Your task to perform on an android device: change the clock display to digital Image 0: 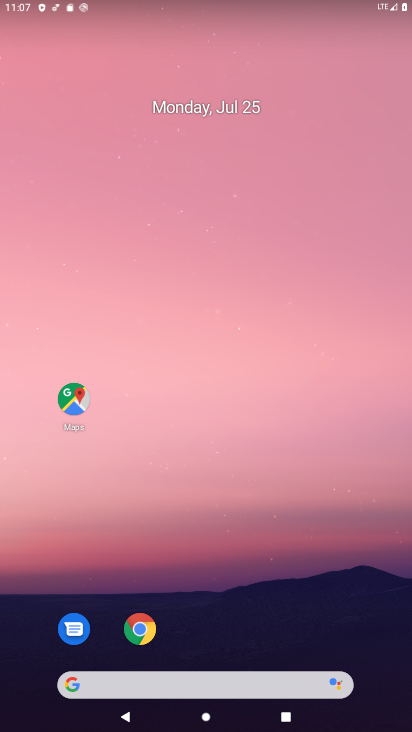
Step 0: press home button
Your task to perform on an android device: change the clock display to digital Image 1: 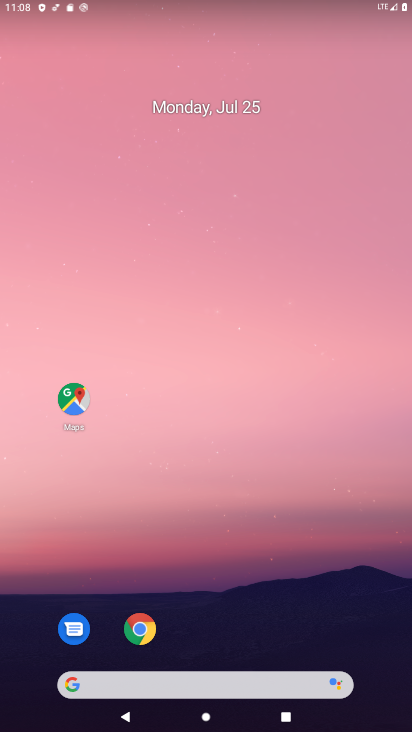
Step 1: drag from (195, 648) to (212, 159)
Your task to perform on an android device: change the clock display to digital Image 2: 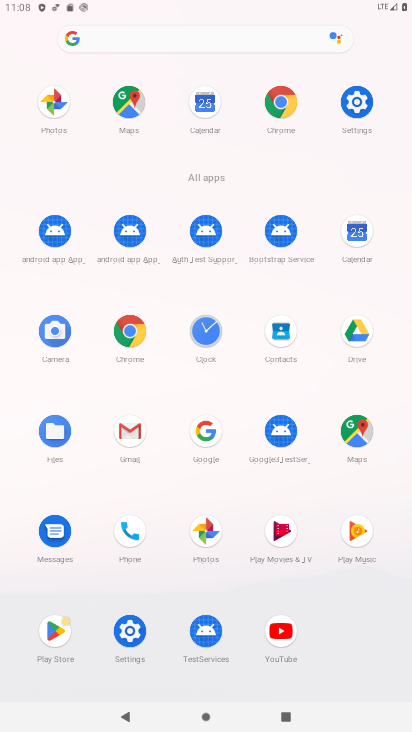
Step 2: click (201, 350)
Your task to perform on an android device: change the clock display to digital Image 3: 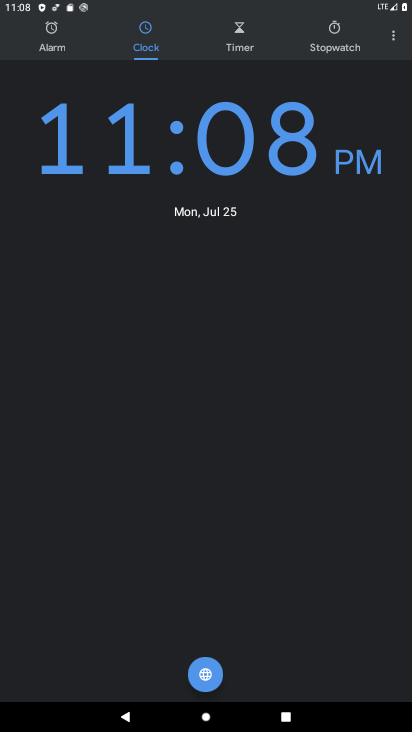
Step 3: click (384, 46)
Your task to perform on an android device: change the clock display to digital Image 4: 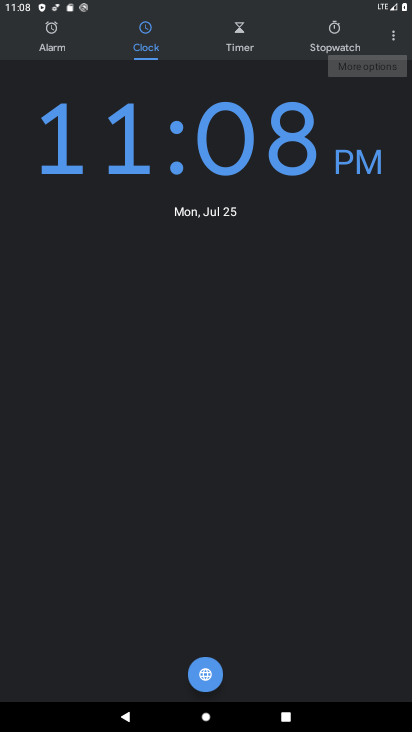
Step 4: click (392, 40)
Your task to perform on an android device: change the clock display to digital Image 5: 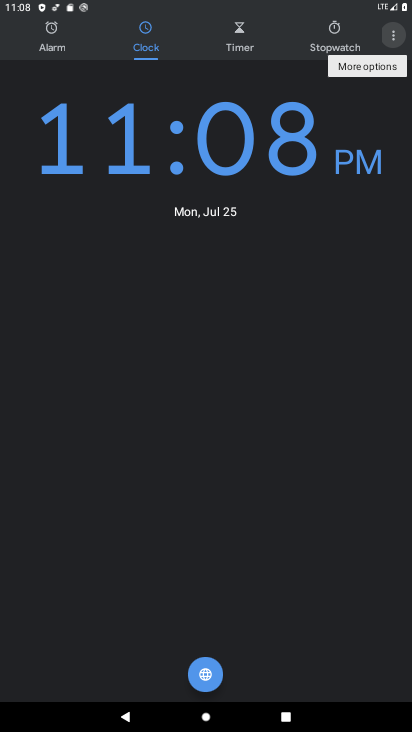
Step 5: click (392, 40)
Your task to perform on an android device: change the clock display to digital Image 6: 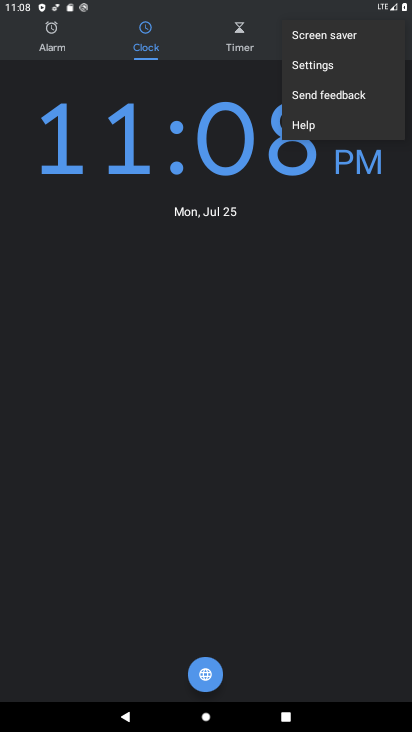
Step 6: click (356, 70)
Your task to perform on an android device: change the clock display to digital Image 7: 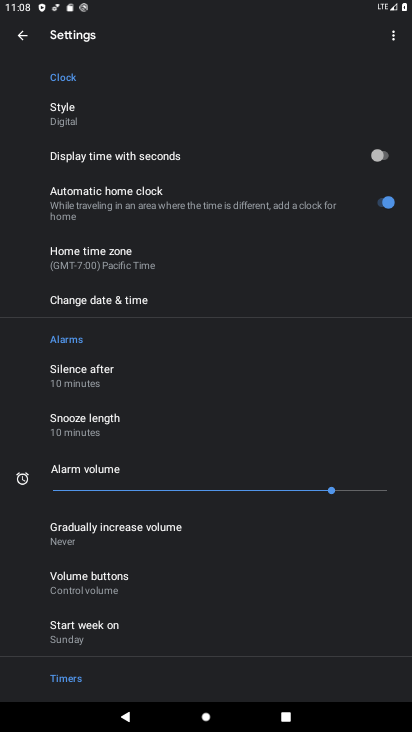
Step 7: click (102, 113)
Your task to perform on an android device: change the clock display to digital Image 8: 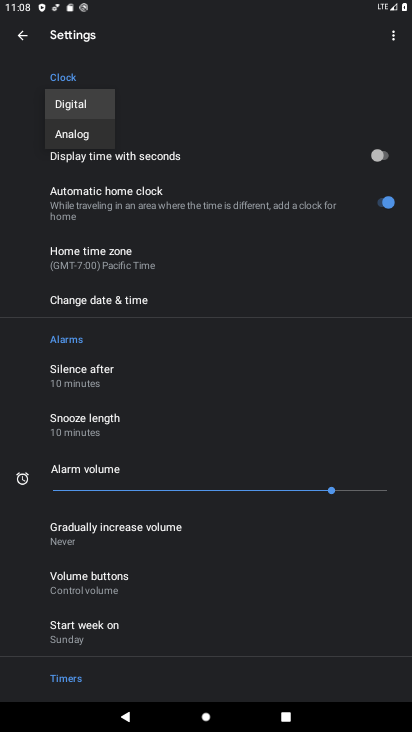
Step 8: task complete